Your task to perform on an android device: install app "Google News" Image 0: 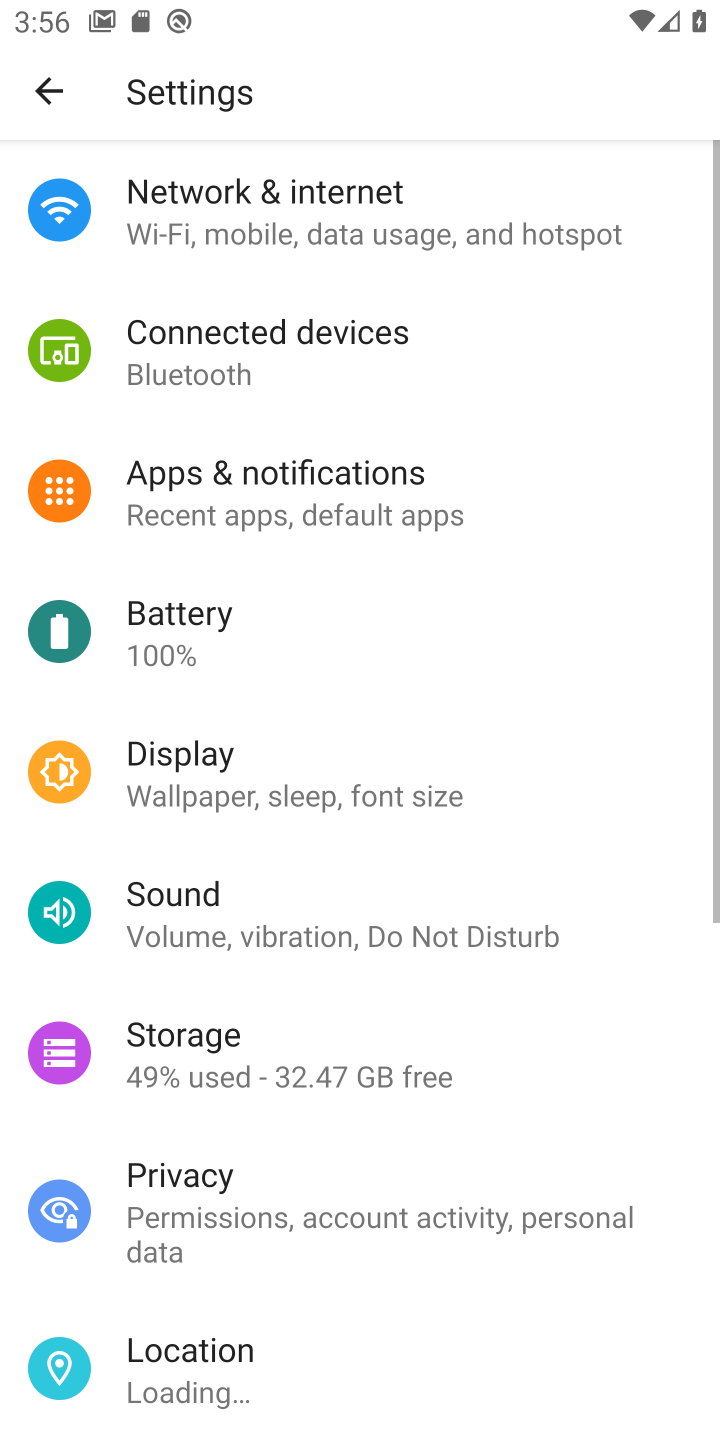
Step 0: press home button
Your task to perform on an android device: install app "Google News" Image 1: 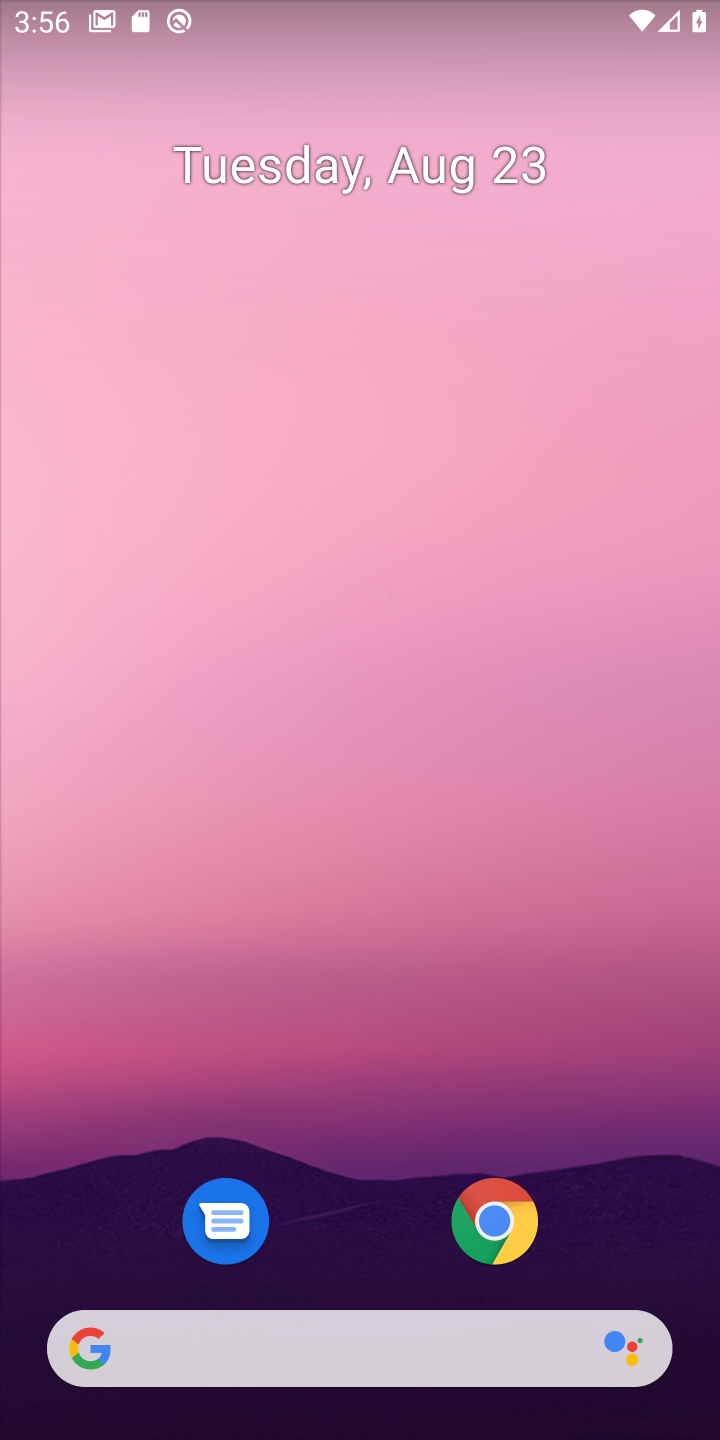
Step 1: drag from (345, 1028) to (345, 386)
Your task to perform on an android device: install app "Google News" Image 2: 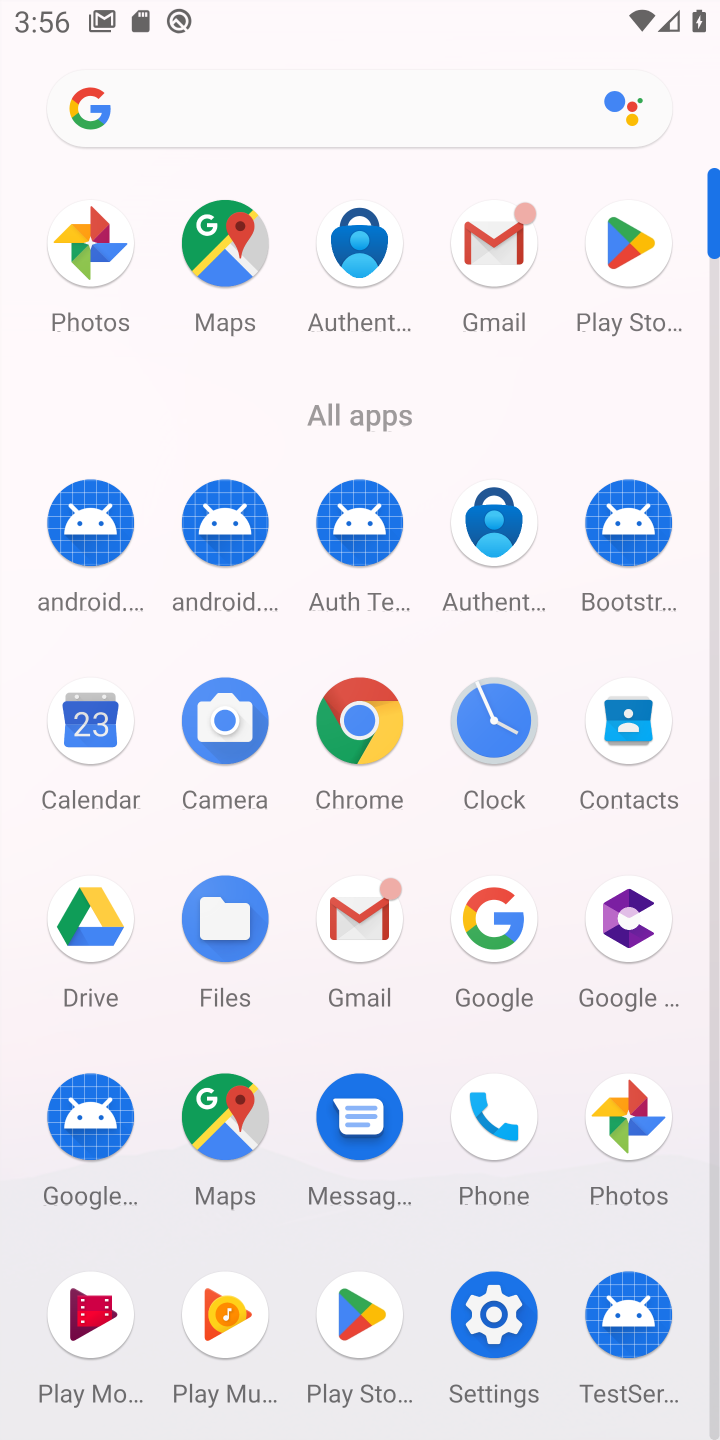
Step 2: click (621, 253)
Your task to perform on an android device: install app "Google News" Image 3: 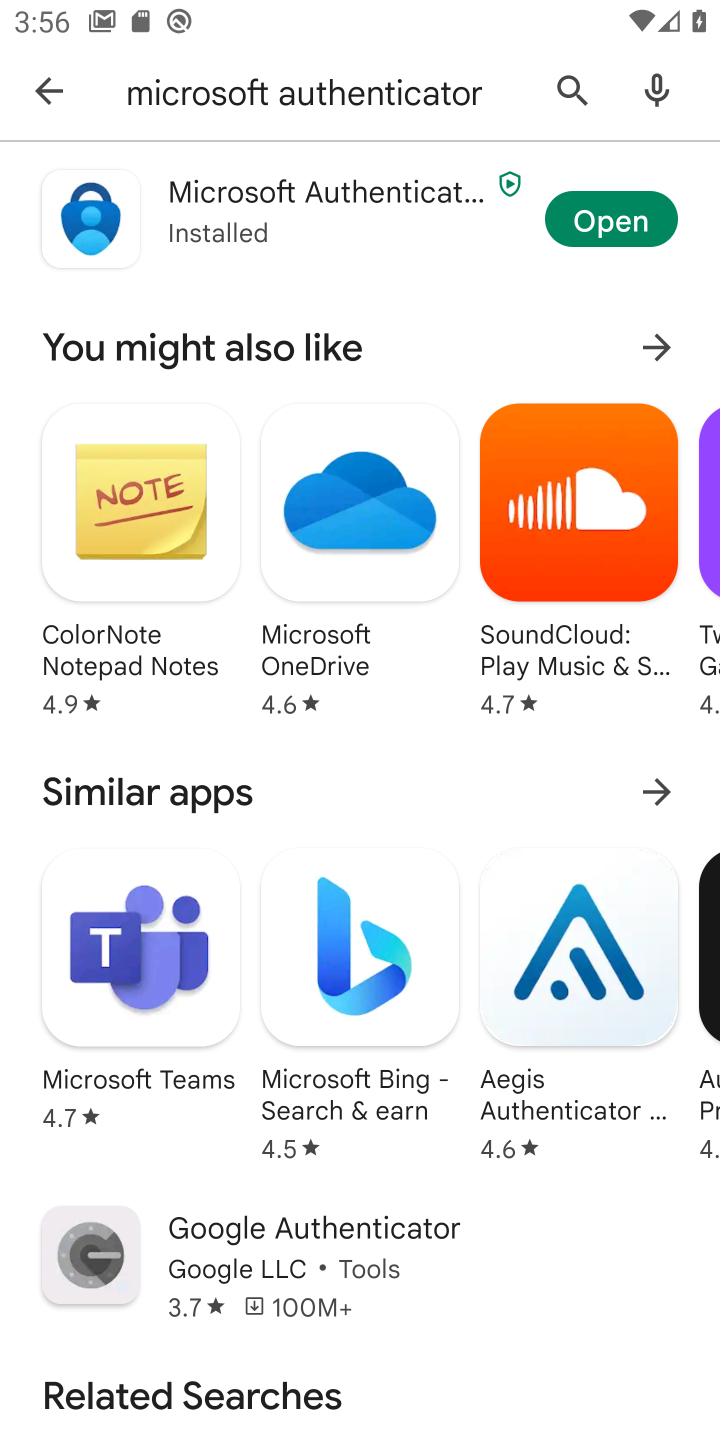
Step 3: click (39, 85)
Your task to perform on an android device: install app "Google News" Image 4: 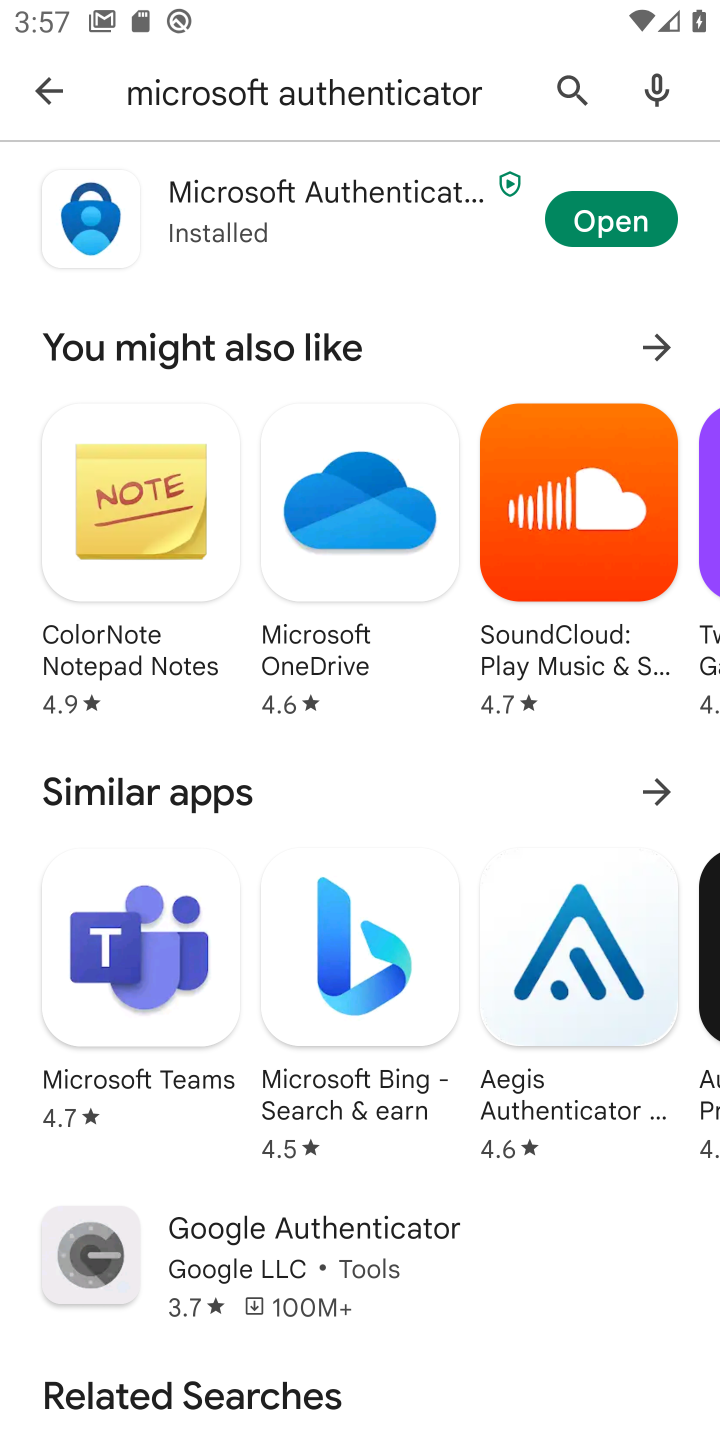
Step 4: click (39, 78)
Your task to perform on an android device: install app "Google News" Image 5: 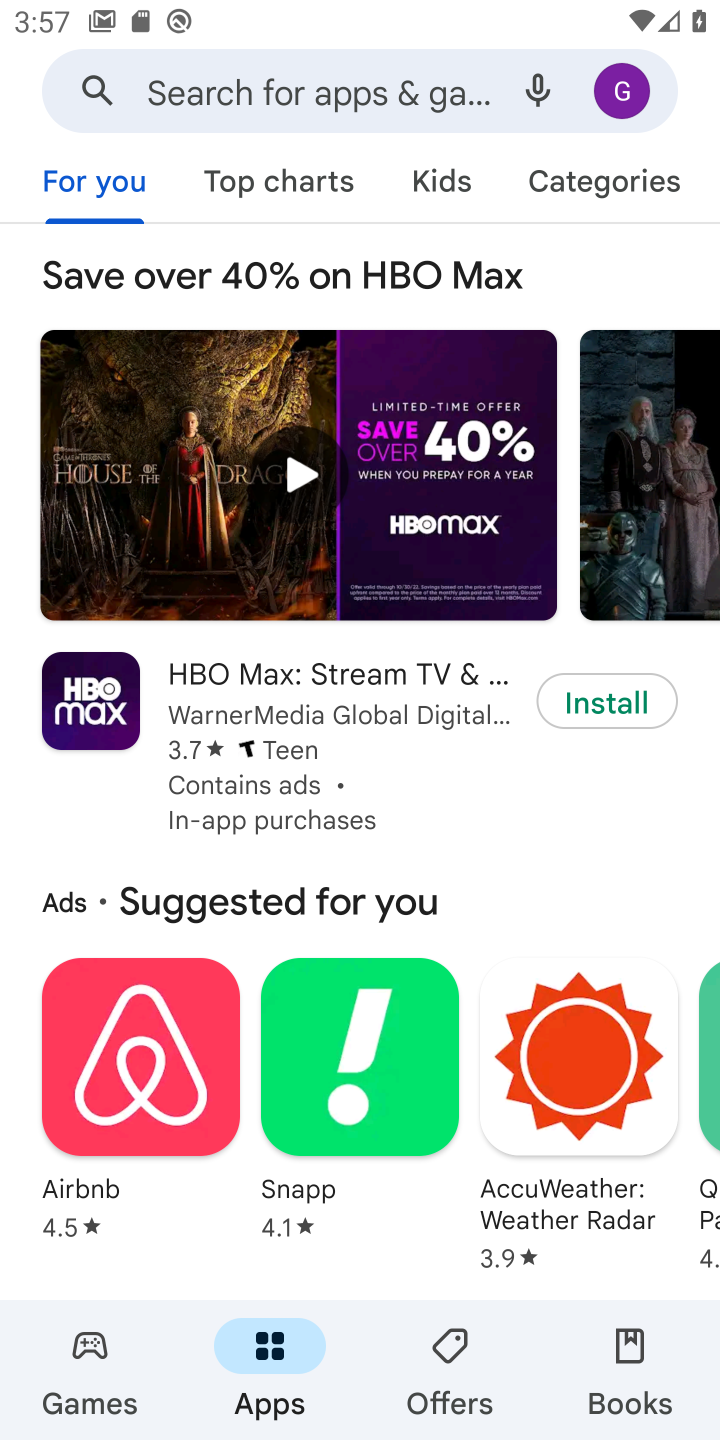
Step 5: click (378, 73)
Your task to perform on an android device: install app "Google News" Image 6: 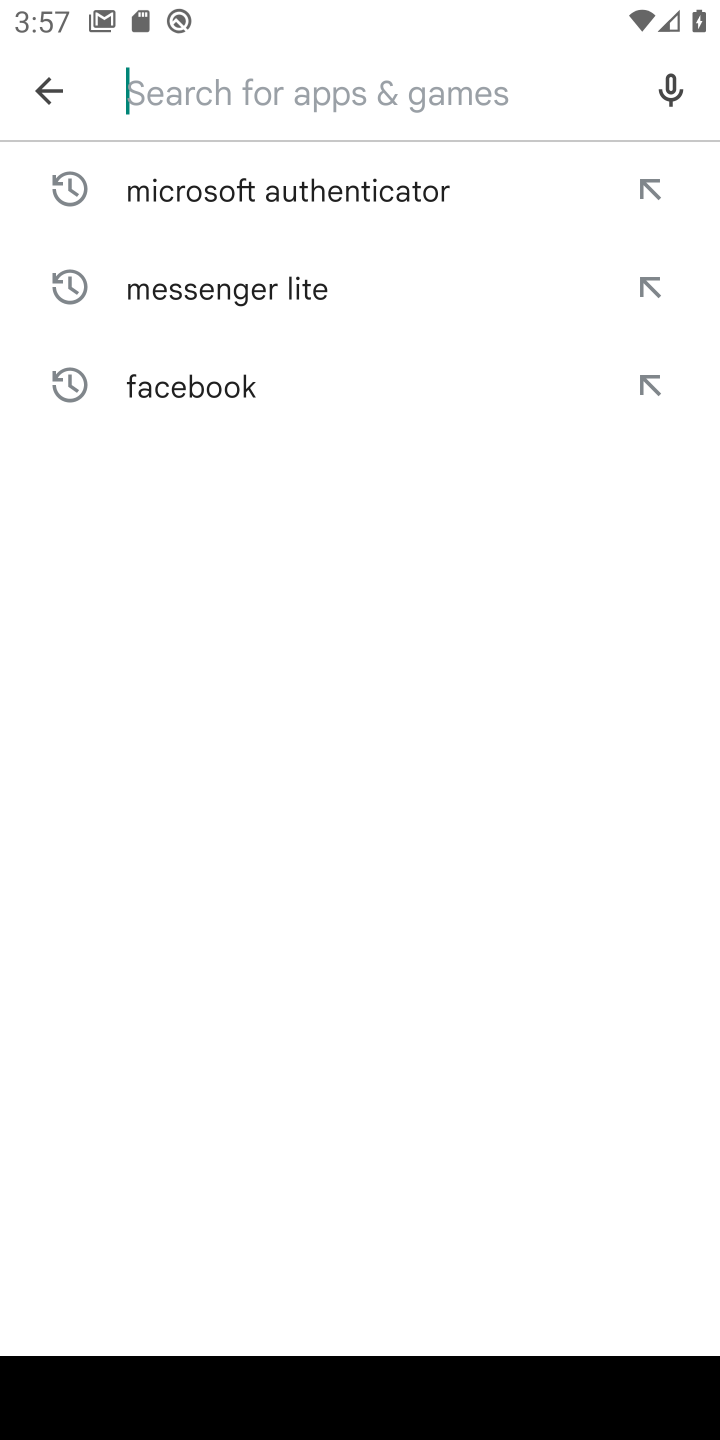
Step 6: type "Google News"
Your task to perform on an android device: install app "Google News" Image 7: 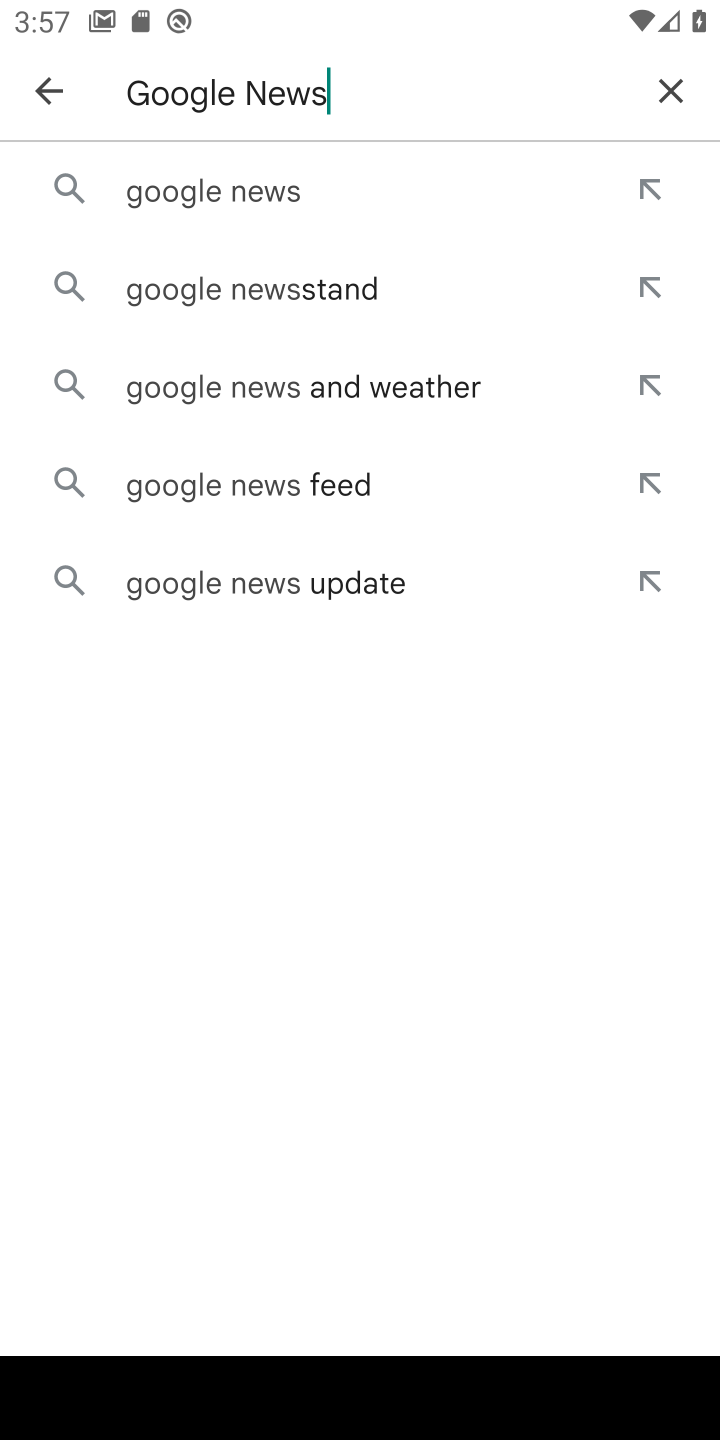
Step 7: click (192, 190)
Your task to perform on an android device: install app "Google News" Image 8: 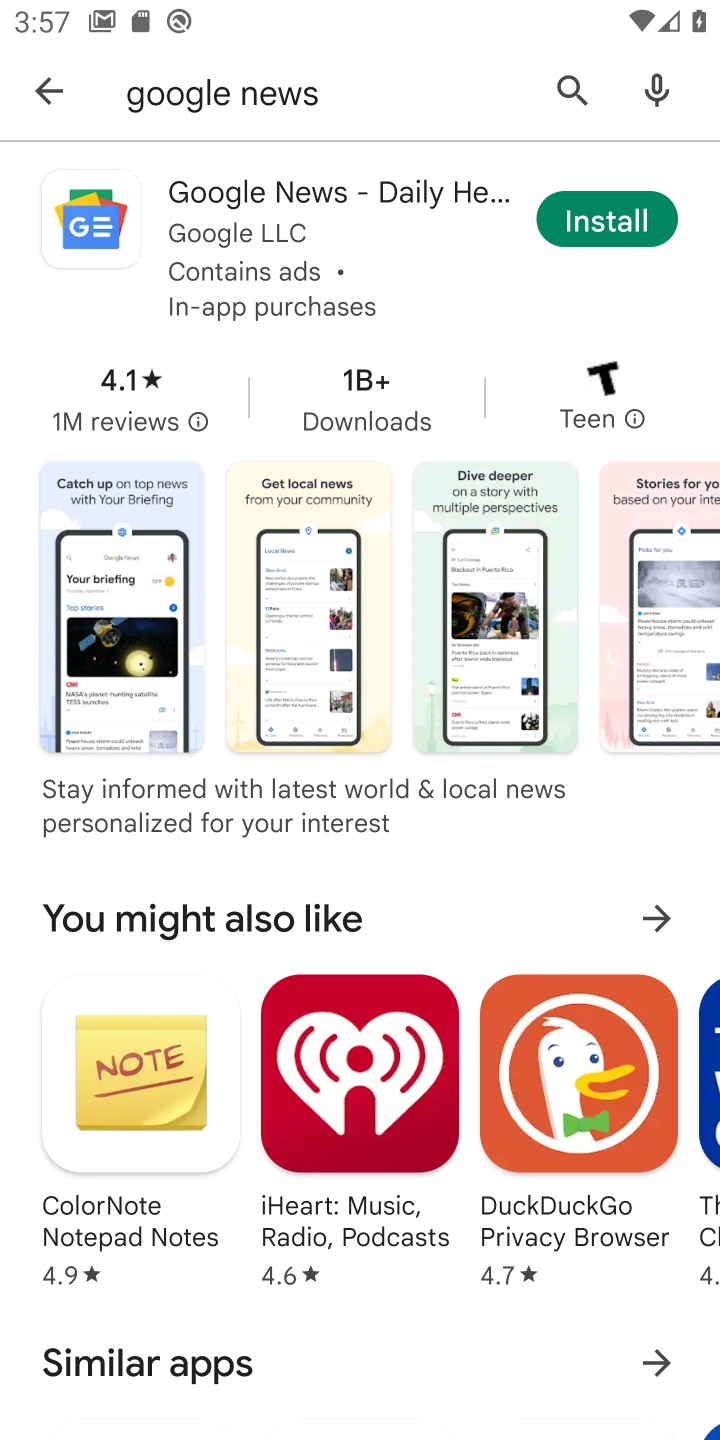
Step 8: click (611, 204)
Your task to perform on an android device: install app "Google News" Image 9: 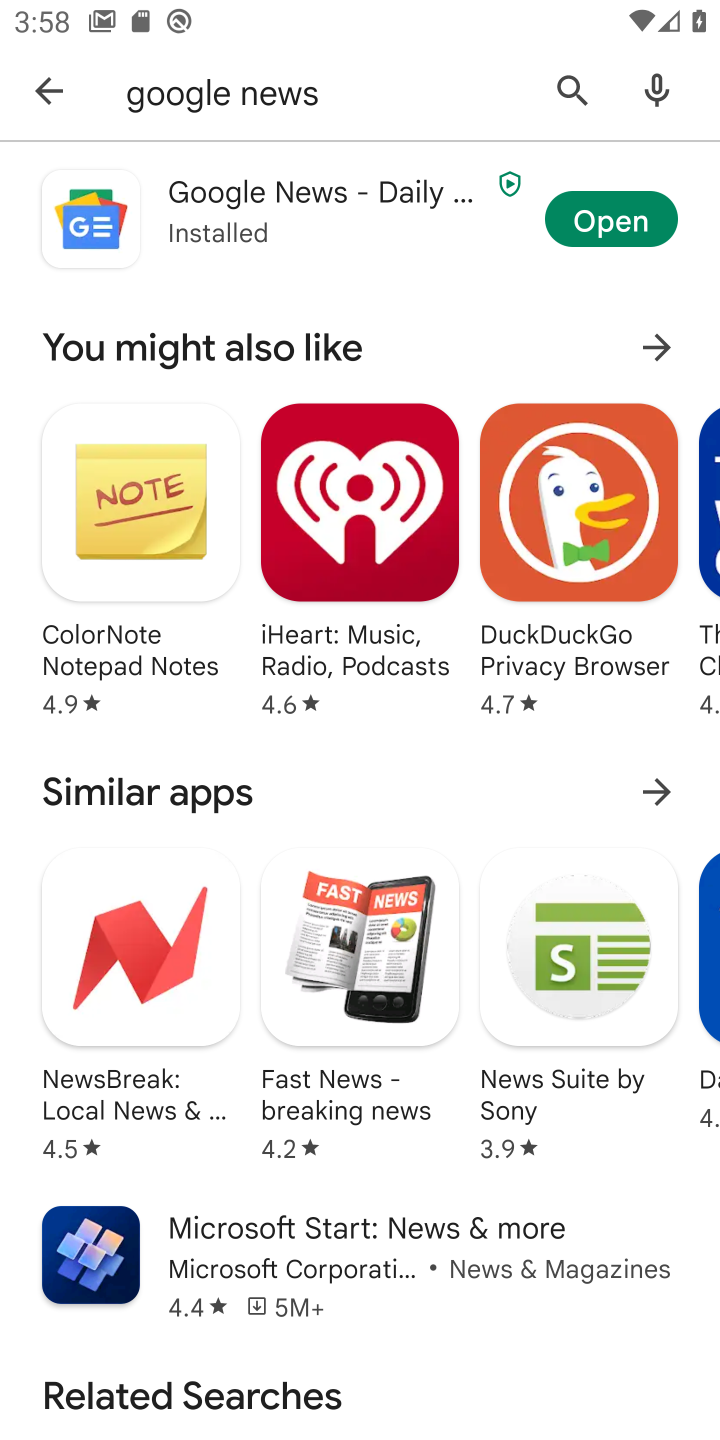
Step 9: click (627, 223)
Your task to perform on an android device: install app "Google News" Image 10: 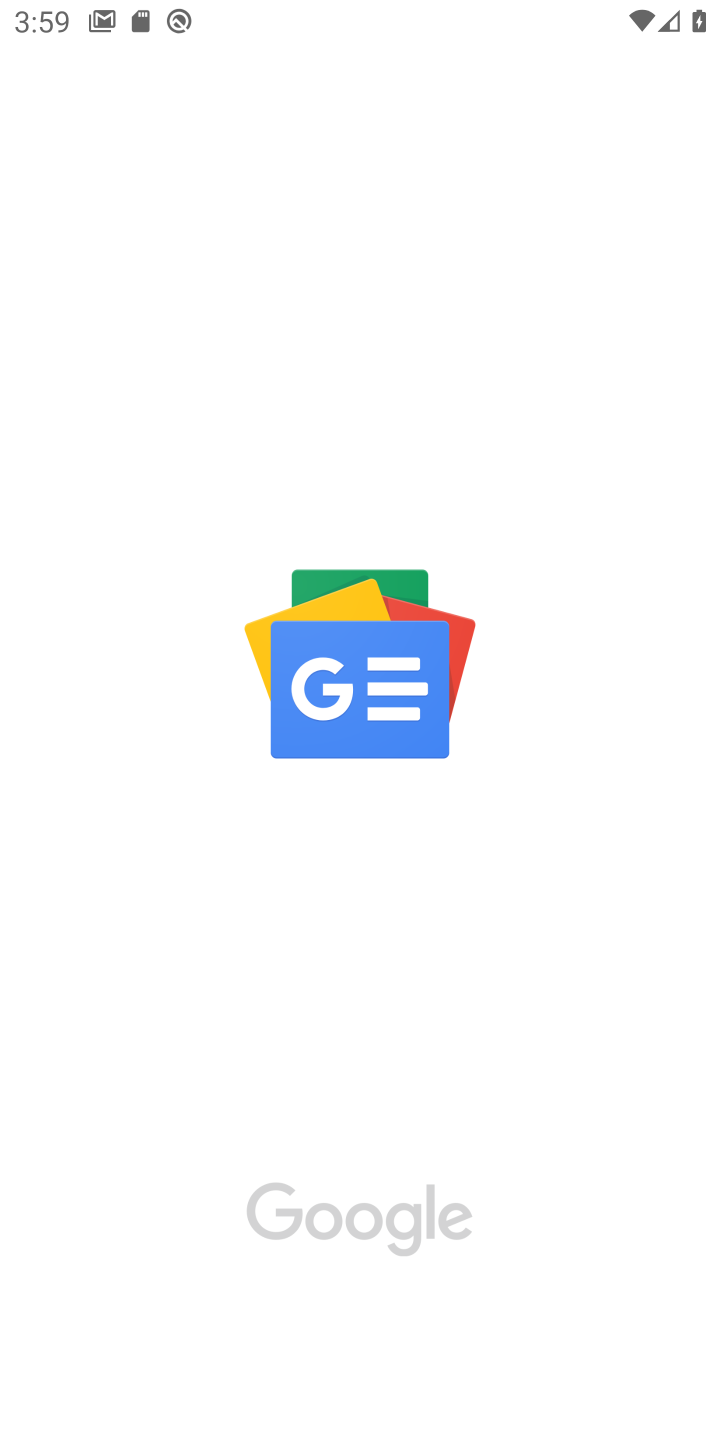
Step 10: task complete